Your task to perform on an android device: open the mobile data screen to see how much data has been used Image 0: 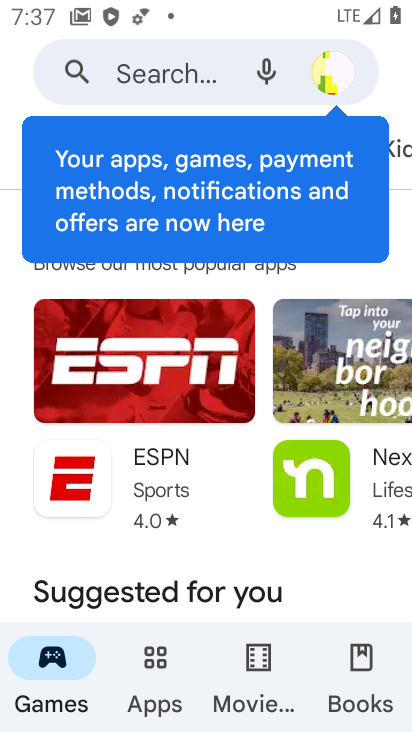
Step 0: press home button
Your task to perform on an android device: open the mobile data screen to see how much data has been used Image 1: 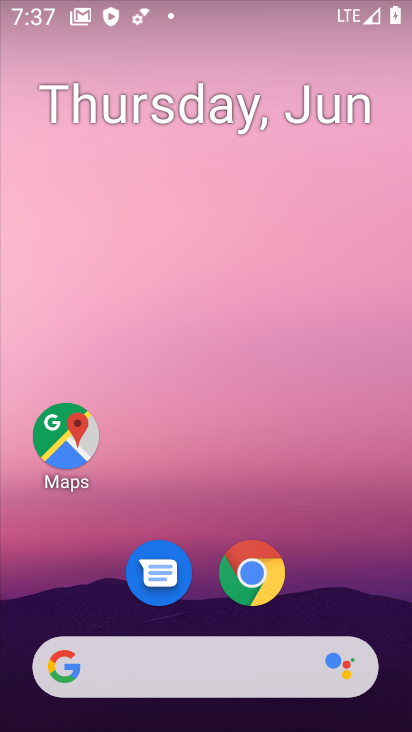
Step 1: drag from (264, 592) to (266, 260)
Your task to perform on an android device: open the mobile data screen to see how much data has been used Image 2: 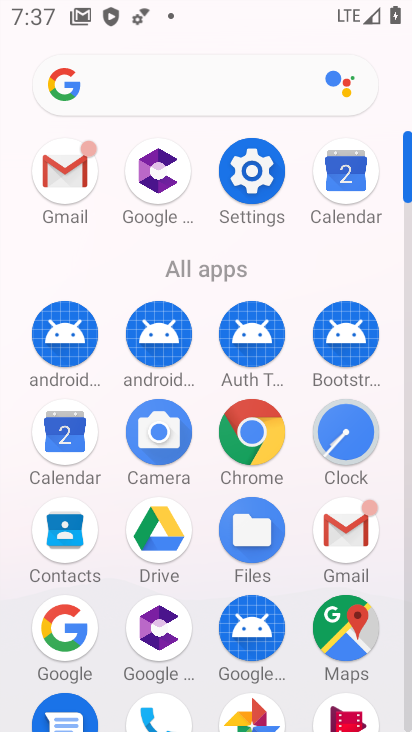
Step 2: click (245, 164)
Your task to perform on an android device: open the mobile data screen to see how much data has been used Image 3: 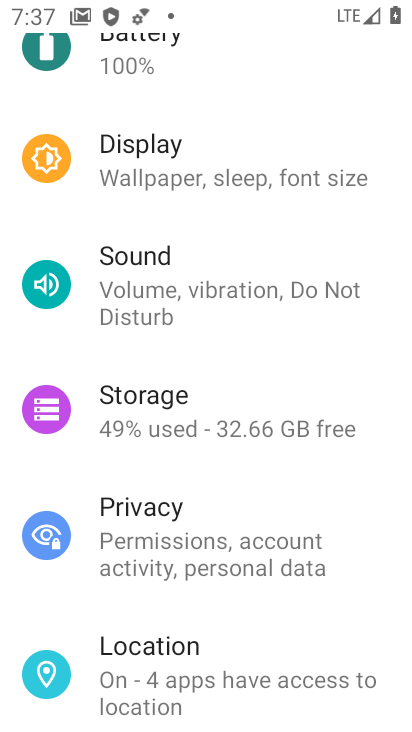
Step 3: drag from (154, 161) to (156, 614)
Your task to perform on an android device: open the mobile data screen to see how much data has been used Image 4: 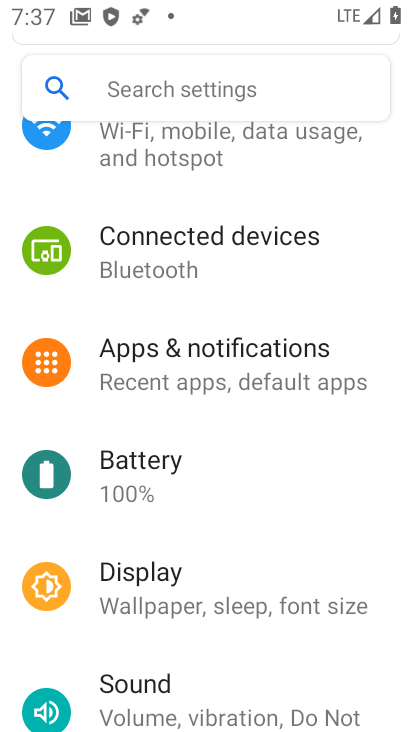
Step 4: drag from (186, 164) to (172, 504)
Your task to perform on an android device: open the mobile data screen to see how much data has been used Image 5: 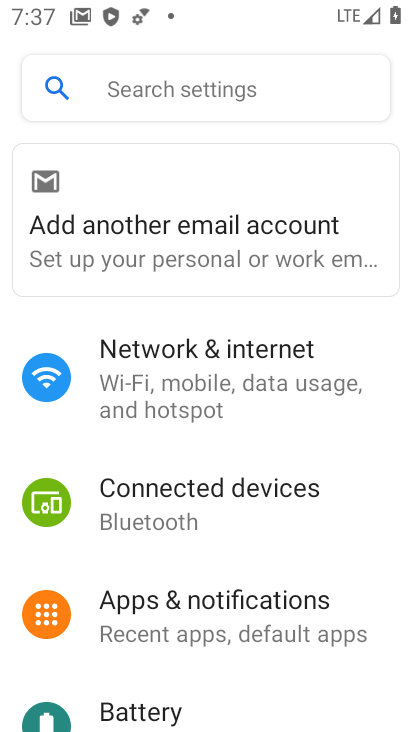
Step 5: click (156, 345)
Your task to perform on an android device: open the mobile data screen to see how much data has been used Image 6: 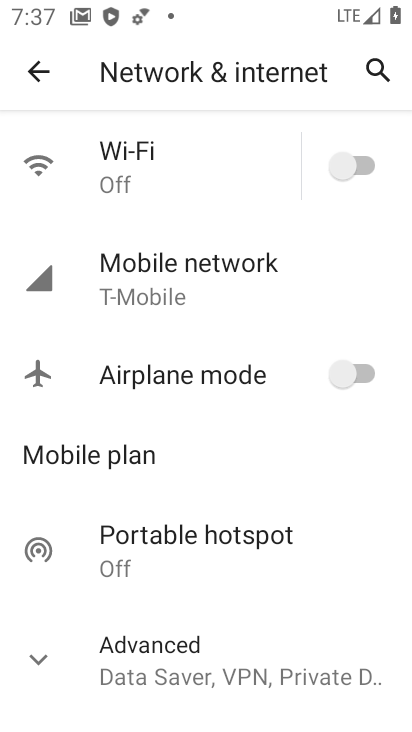
Step 6: click (145, 267)
Your task to perform on an android device: open the mobile data screen to see how much data has been used Image 7: 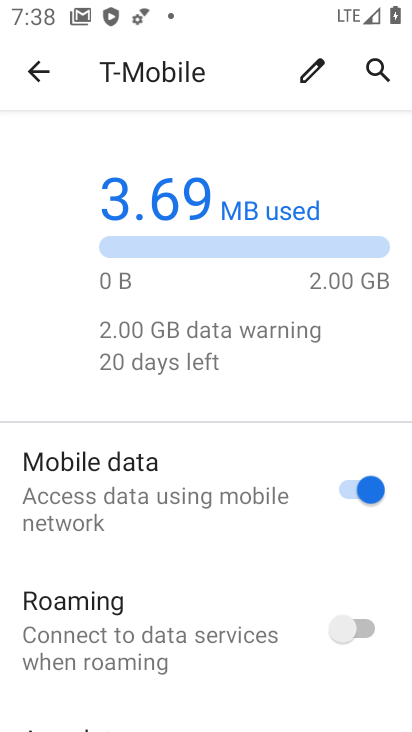
Step 7: task complete